Your task to perform on an android device: Open wifi settings Image 0: 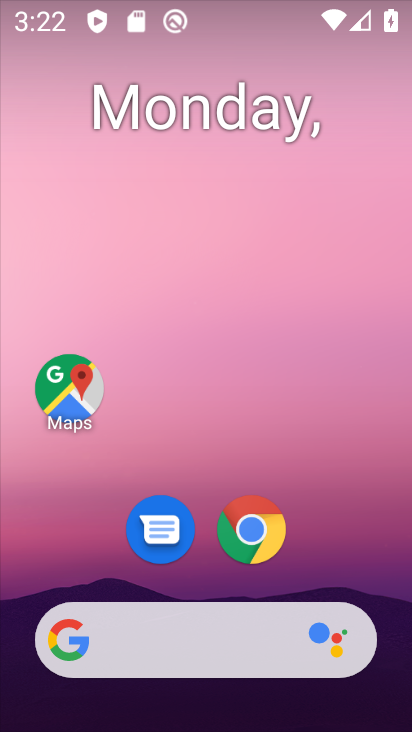
Step 0: drag from (206, 547) to (254, 2)
Your task to perform on an android device: Open wifi settings Image 1: 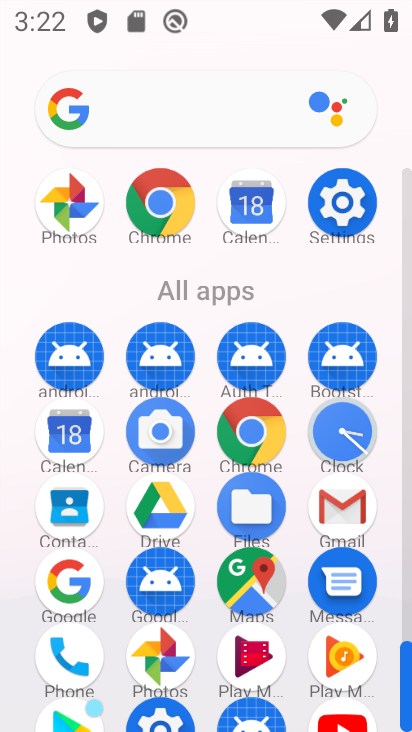
Step 1: click (352, 213)
Your task to perform on an android device: Open wifi settings Image 2: 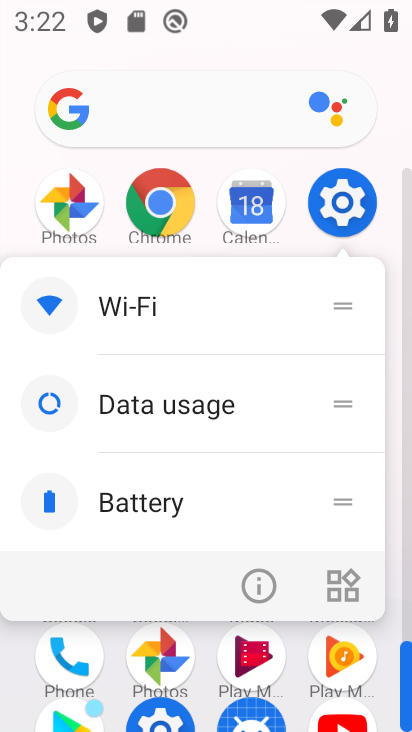
Step 2: click (343, 190)
Your task to perform on an android device: Open wifi settings Image 3: 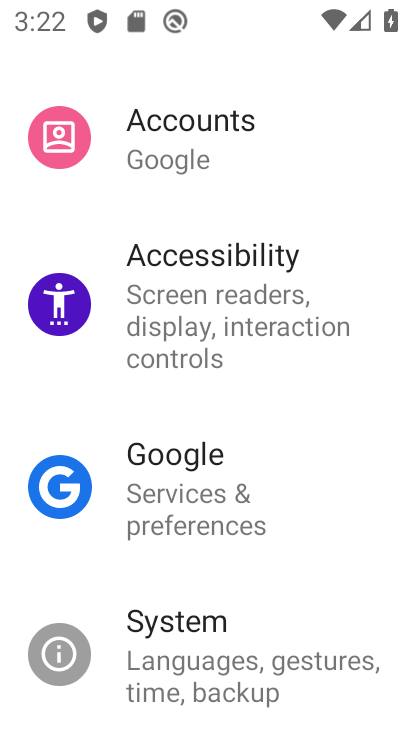
Step 3: drag from (250, 184) to (246, 535)
Your task to perform on an android device: Open wifi settings Image 4: 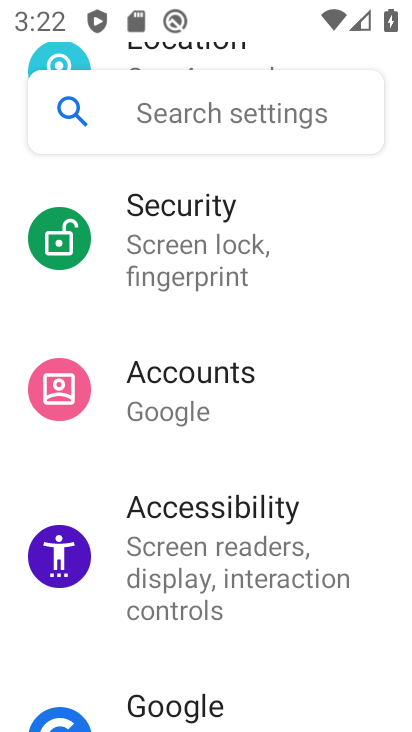
Step 4: drag from (215, 236) to (212, 712)
Your task to perform on an android device: Open wifi settings Image 5: 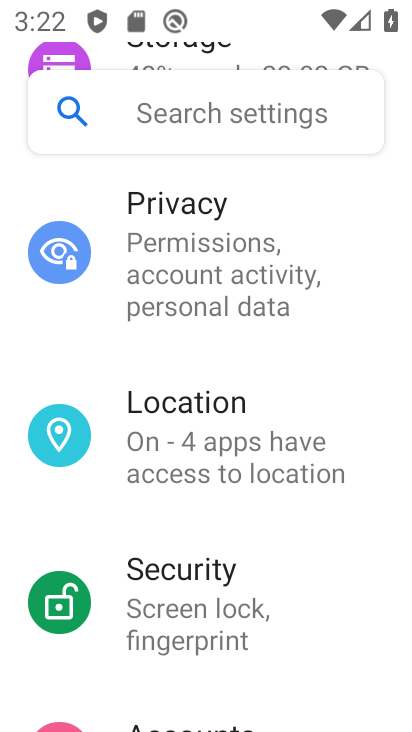
Step 5: drag from (222, 292) to (215, 723)
Your task to perform on an android device: Open wifi settings Image 6: 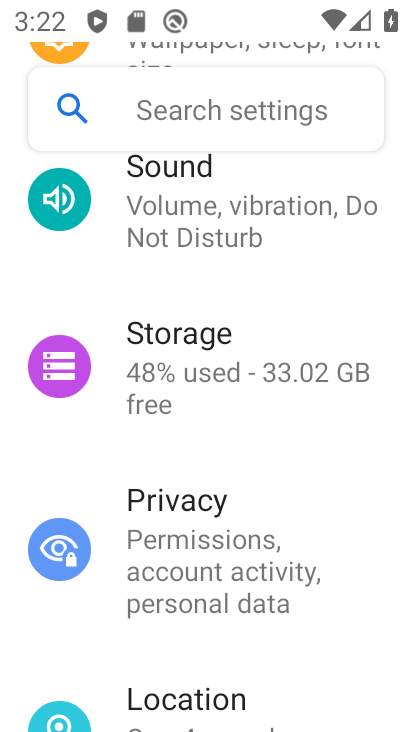
Step 6: drag from (231, 241) to (218, 689)
Your task to perform on an android device: Open wifi settings Image 7: 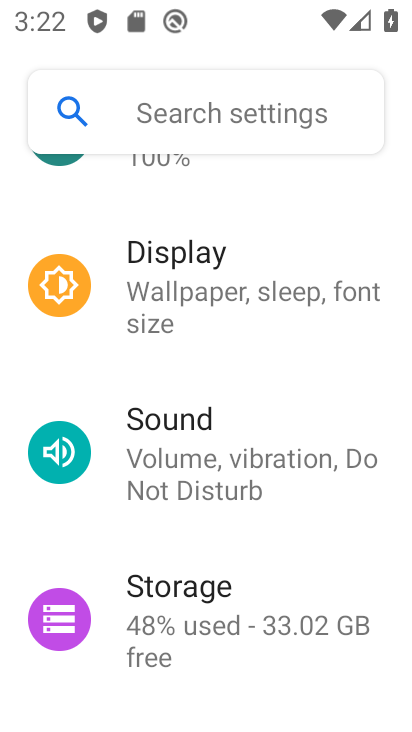
Step 7: drag from (256, 235) to (231, 717)
Your task to perform on an android device: Open wifi settings Image 8: 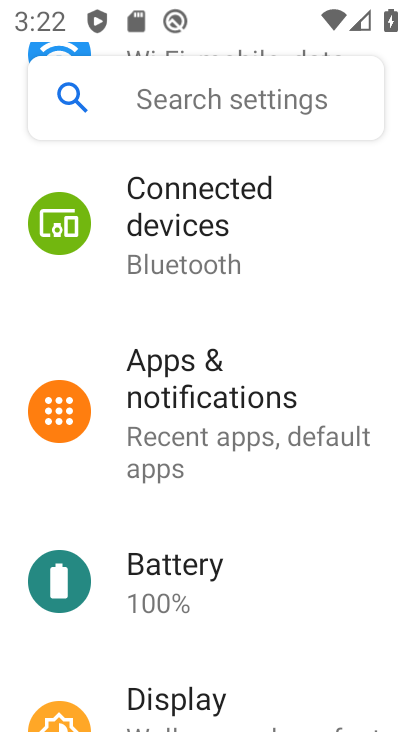
Step 8: drag from (287, 322) to (248, 731)
Your task to perform on an android device: Open wifi settings Image 9: 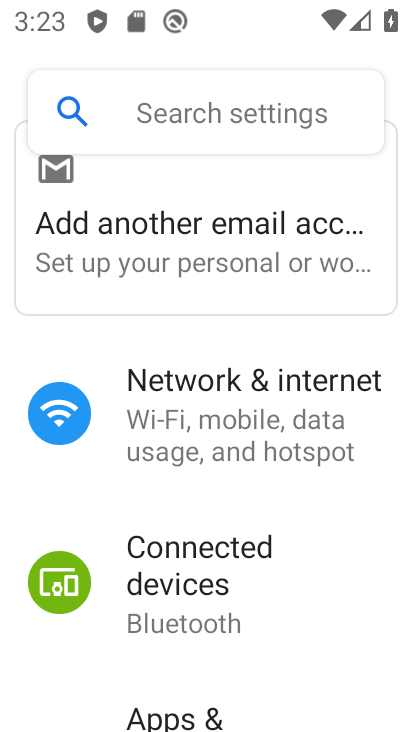
Step 9: click (212, 425)
Your task to perform on an android device: Open wifi settings Image 10: 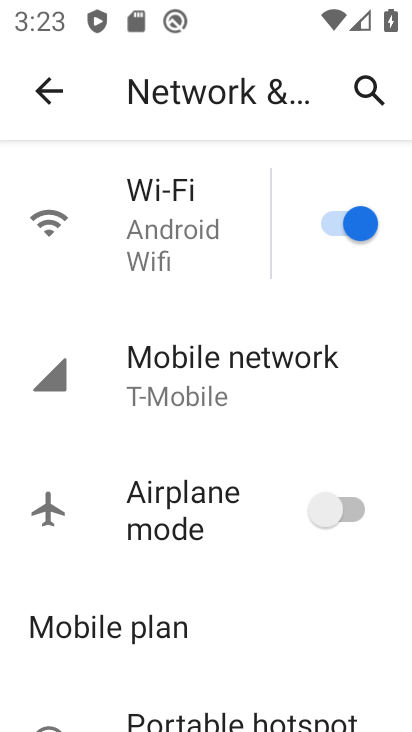
Step 10: click (158, 253)
Your task to perform on an android device: Open wifi settings Image 11: 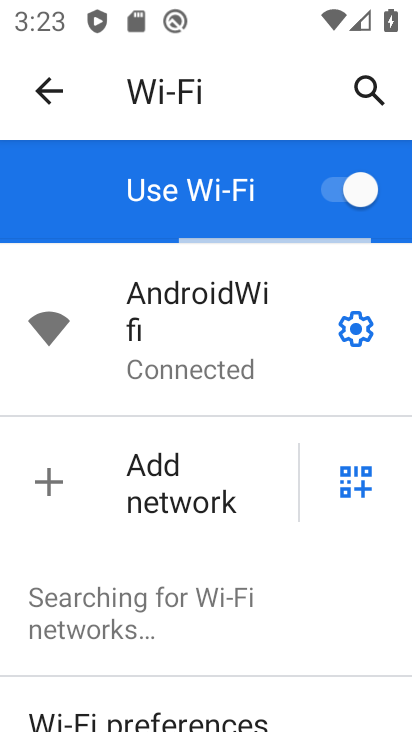
Step 11: task complete